Your task to perform on an android device: turn off notifications in google photos Image 0: 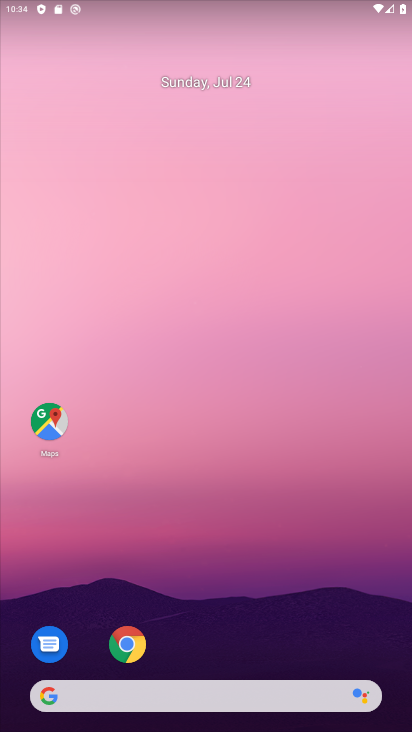
Step 0: drag from (254, 656) to (264, 8)
Your task to perform on an android device: turn off notifications in google photos Image 1: 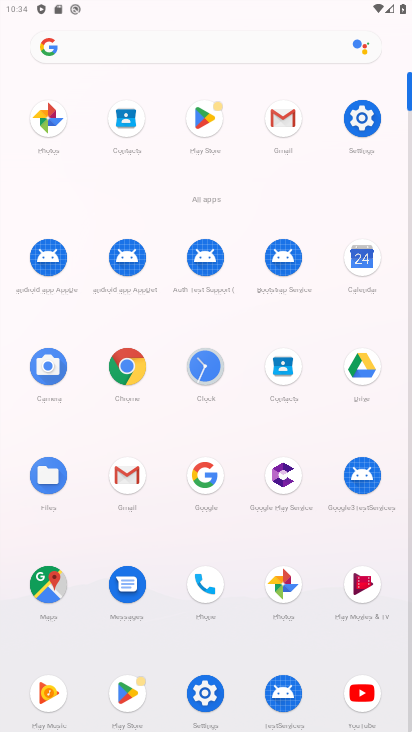
Step 1: click (49, 124)
Your task to perform on an android device: turn off notifications in google photos Image 2: 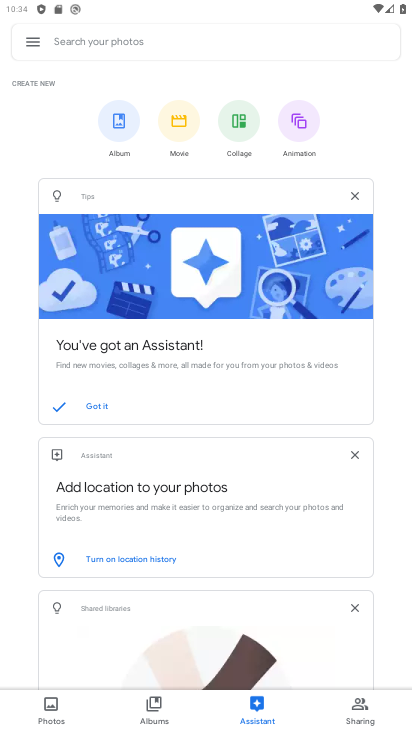
Step 2: click (36, 43)
Your task to perform on an android device: turn off notifications in google photos Image 3: 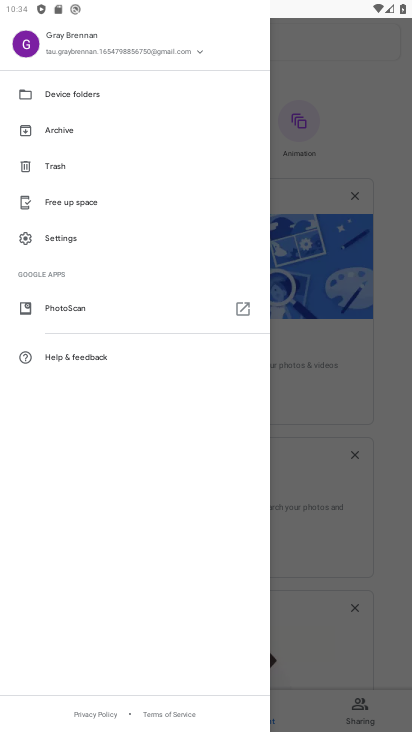
Step 3: click (57, 238)
Your task to perform on an android device: turn off notifications in google photos Image 4: 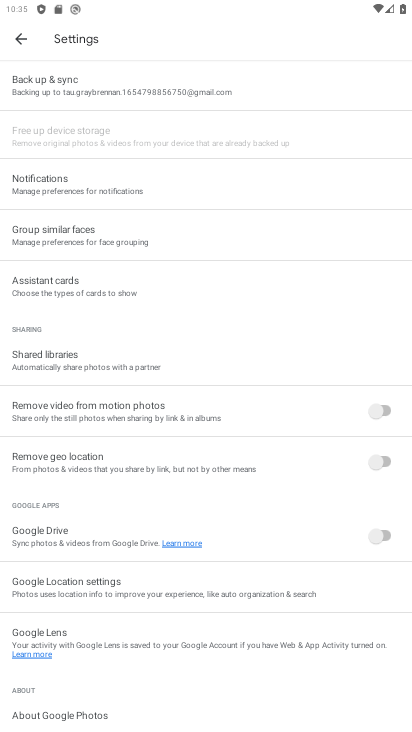
Step 4: click (53, 191)
Your task to perform on an android device: turn off notifications in google photos Image 5: 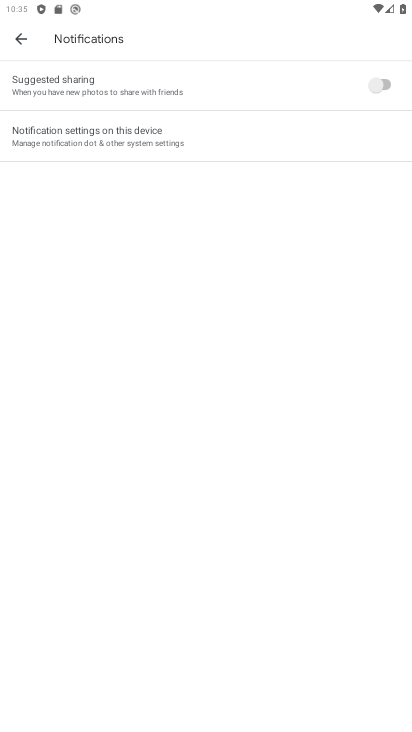
Step 5: click (43, 143)
Your task to perform on an android device: turn off notifications in google photos Image 6: 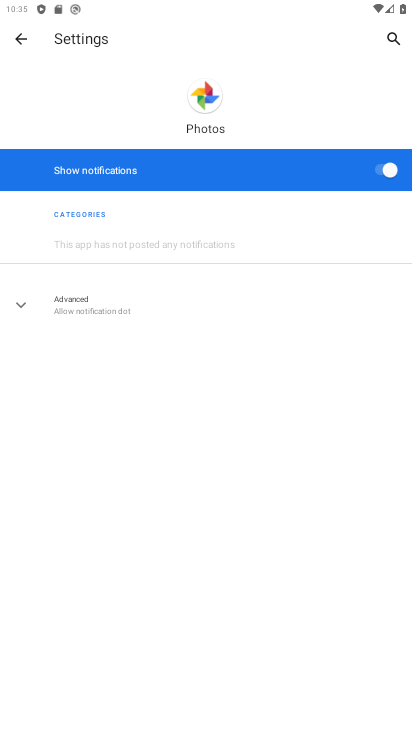
Step 6: click (397, 168)
Your task to perform on an android device: turn off notifications in google photos Image 7: 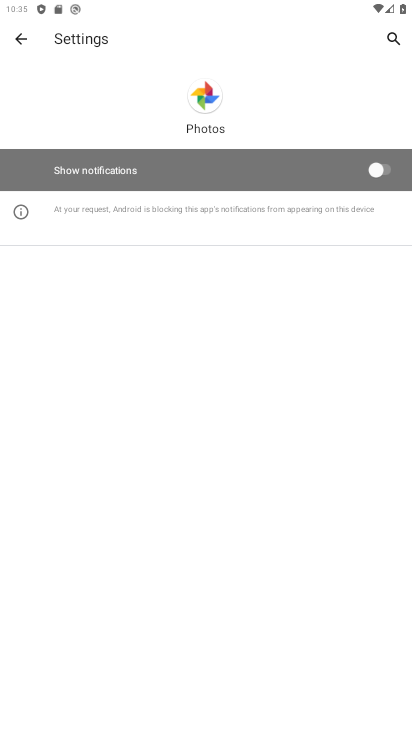
Step 7: task complete